Your task to perform on an android device: turn on the 12-hour format for clock Image 0: 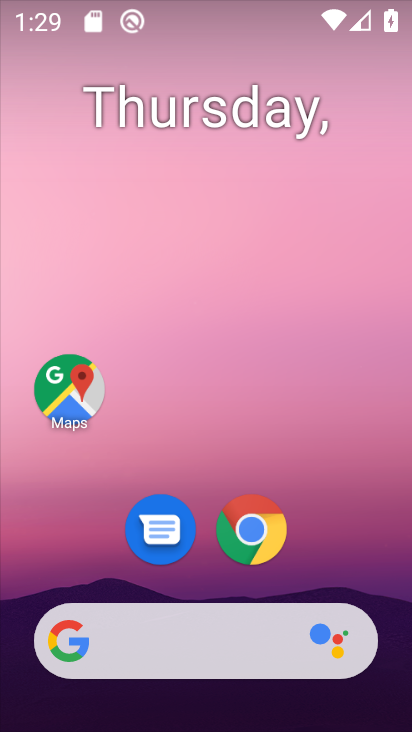
Step 0: drag from (306, 561) to (339, 121)
Your task to perform on an android device: turn on the 12-hour format for clock Image 1: 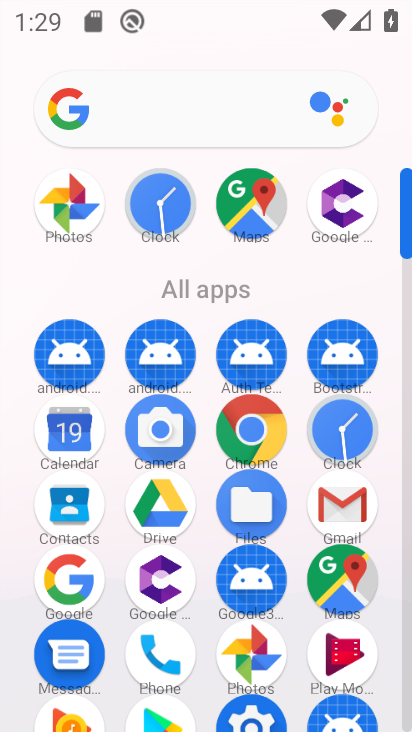
Step 1: click (343, 443)
Your task to perform on an android device: turn on the 12-hour format for clock Image 2: 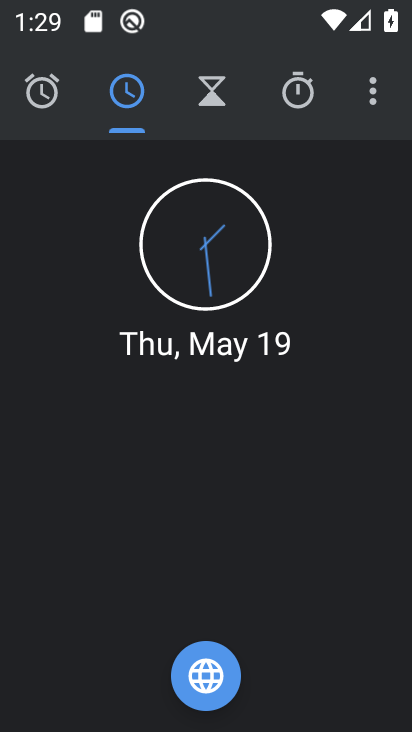
Step 2: click (373, 91)
Your task to perform on an android device: turn on the 12-hour format for clock Image 3: 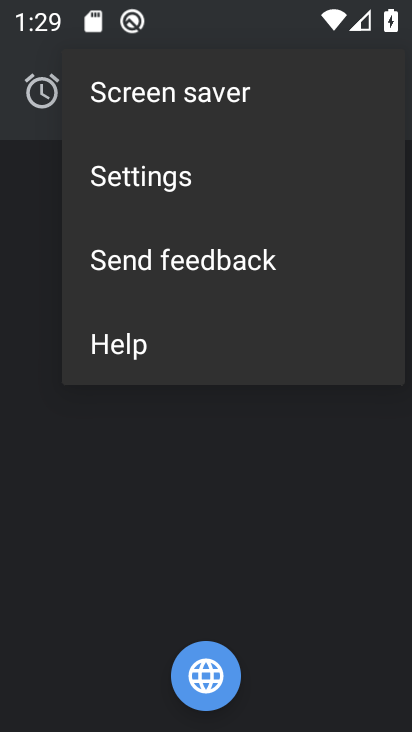
Step 3: click (137, 194)
Your task to perform on an android device: turn on the 12-hour format for clock Image 4: 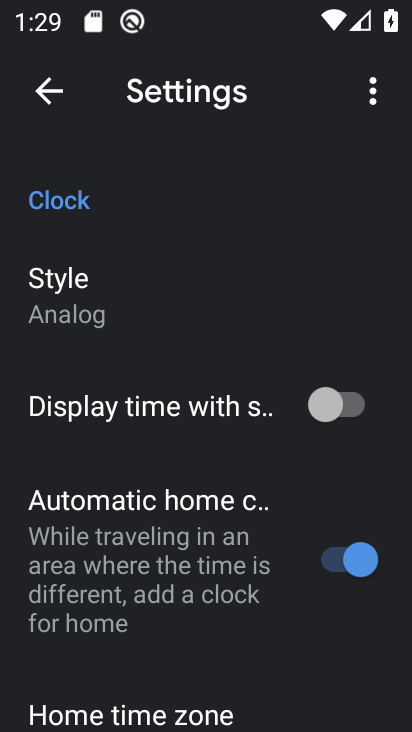
Step 4: drag from (155, 472) to (194, 282)
Your task to perform on an android device: turn on the 12-hour format for clock Image 5: 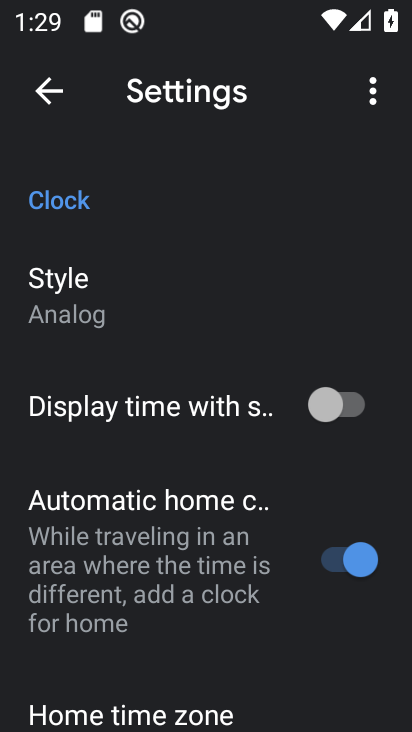
Step 5: drag from (201, 658) to (264, 345)
Your task to perform on an android device: turn on the 12-hour format for clock Image 6: 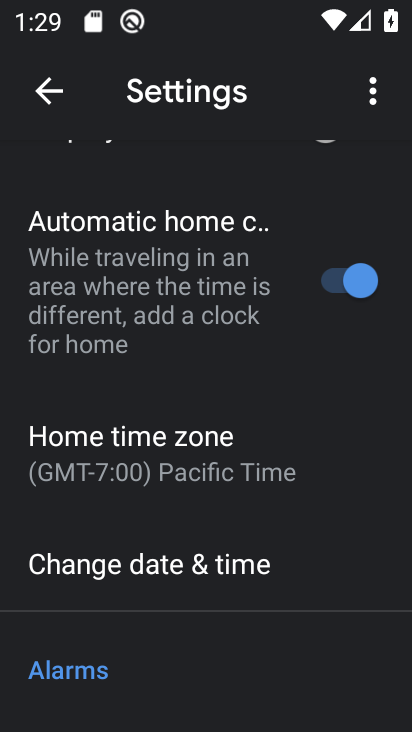
Step 6: click (232, 391)
Your task to perform on an android device: turn on the 12-hour format for clock Image 7: 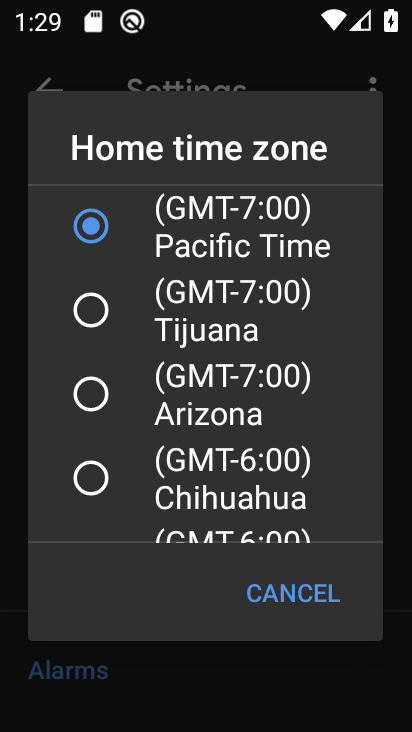
Step 7: click (291, 599)
Your task to perform on an android device: turn on the 12-hour format for clock Image 8: 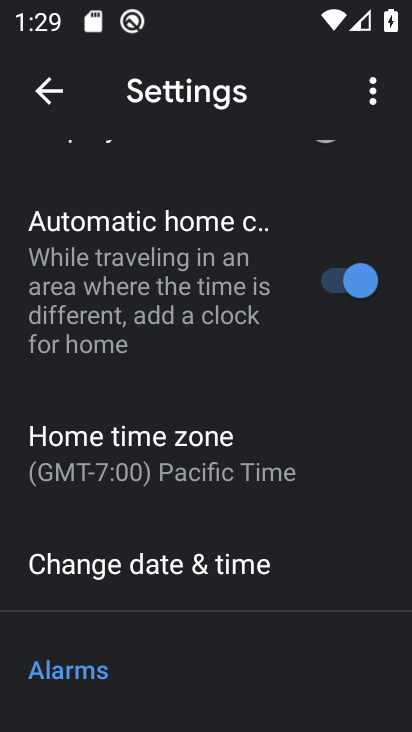
Step 8: click (203, 572)
Your task to perform on an android device: turn on the 12-hour format for clock Image 9: 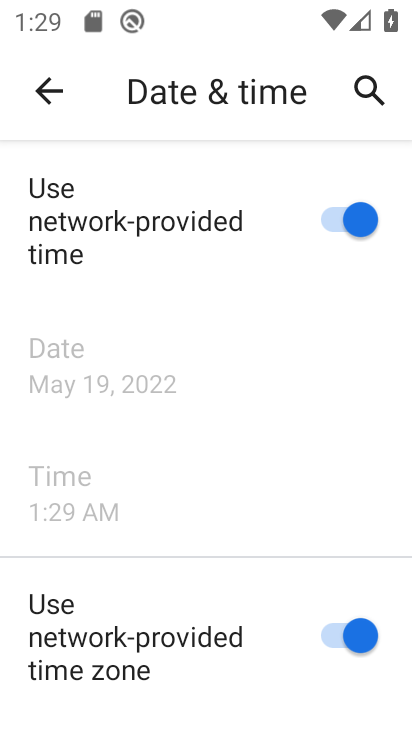
Step 9: task complete